Your task to perform on an android device: turn off picture-in-picture Image 0: 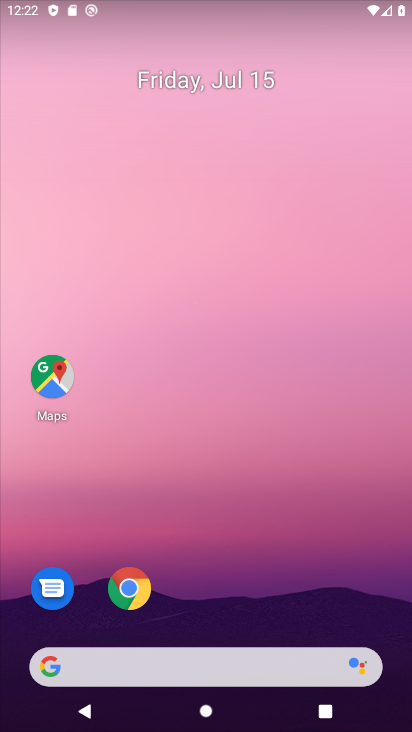
Step 0: click (126, 581)
Your task to perform on an android device: turn off picture-in-picture Image 1: 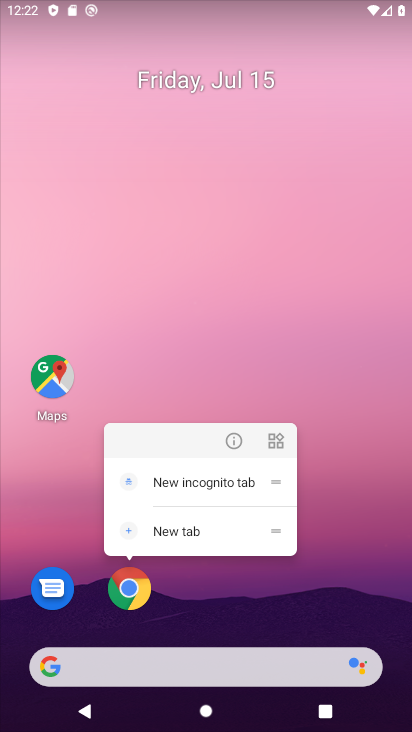
Step 1: click (235, 444)
Your task to perform on an android device: turn off picture-in-picture Image 2: 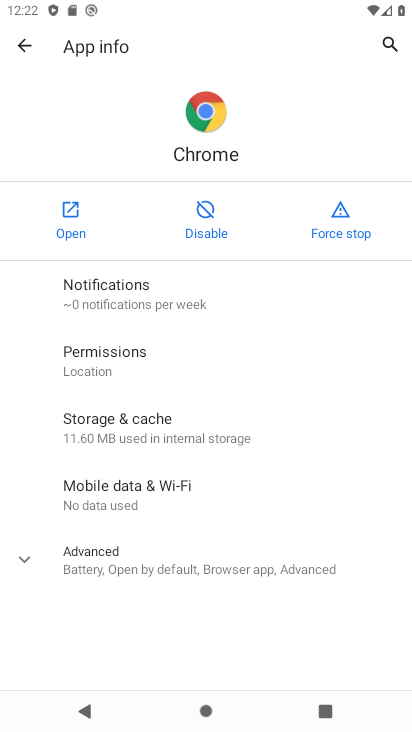
Step 2: click (150, 557)
Your task to perform on an android device: turn off picture-in-picture Image 3: 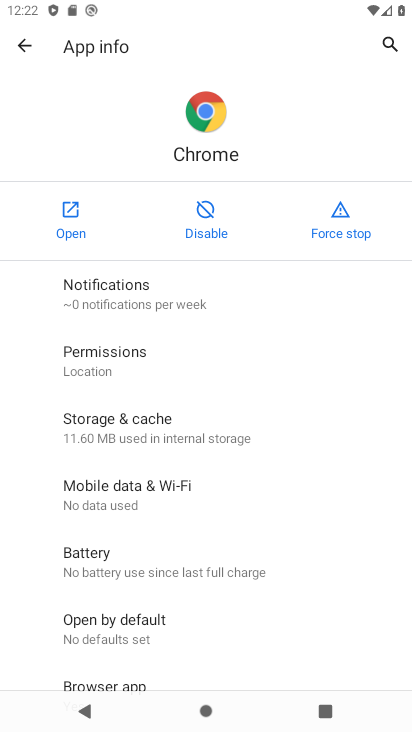
Step 3: drag from (88, 642) to (102, 329)
Your task to perform on an android device: turn off picture-in-picture Image 4: 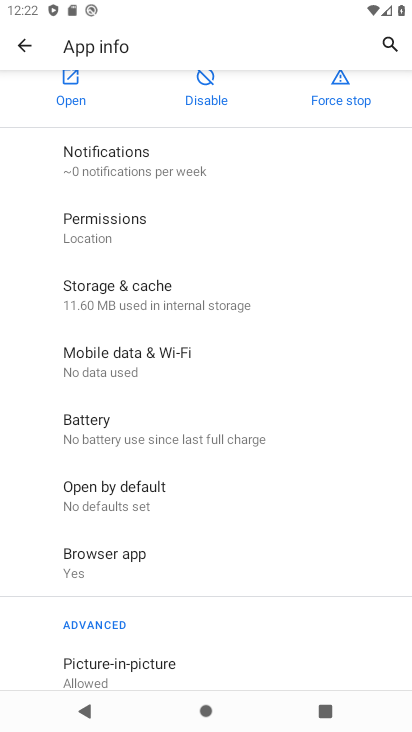
Step 4: click (101, 665)
Your task to perform on an android device: turn off picture-in-picture Image 5: 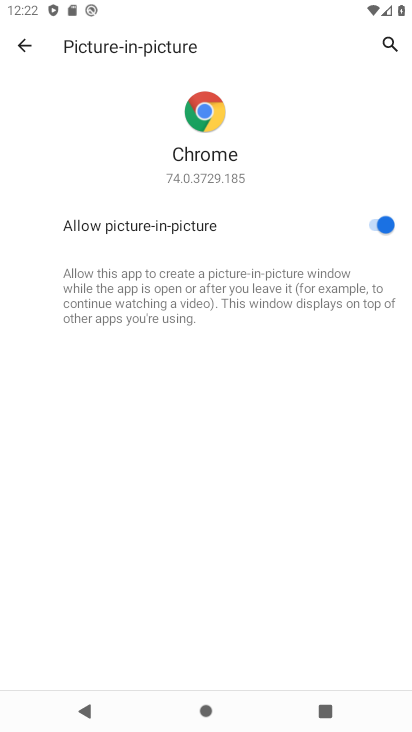
Step 5: click (373, 236)
Your task to perform on an android device: turn off picture-in-picture Image 6: 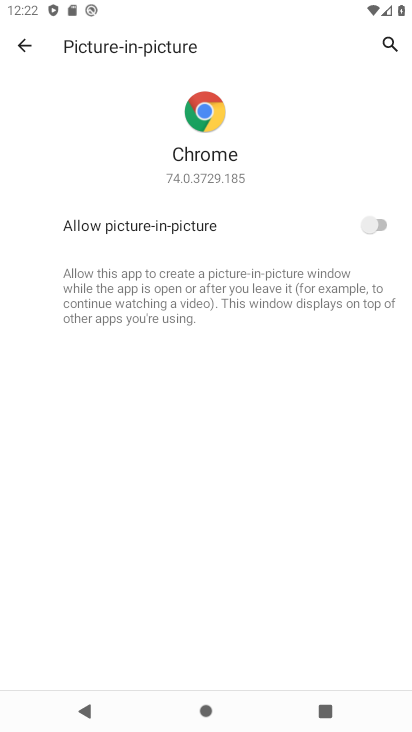
Step 6: task complete